Your task to perform on an android device: Open Google Chrome and open the bookmarks view Image 0: 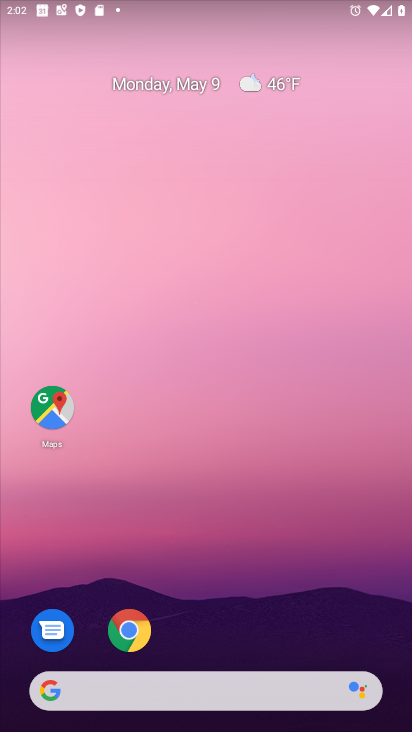
Step 0: drag from (310, 610) to (263, 364)
Your task to perform on an android device: Open Google Chrome and open the bookmarks view Image 1: 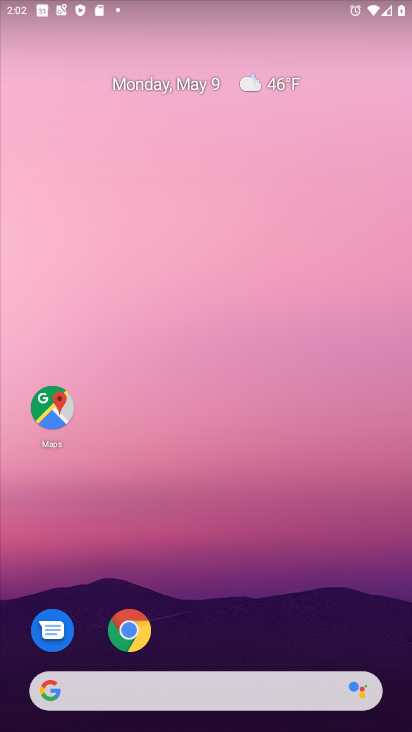
Step 1: drag from (215, 714) to (214, 381)
Your task to perform on an android device: Open Google Chrome and open the bookmarks view Image 2: 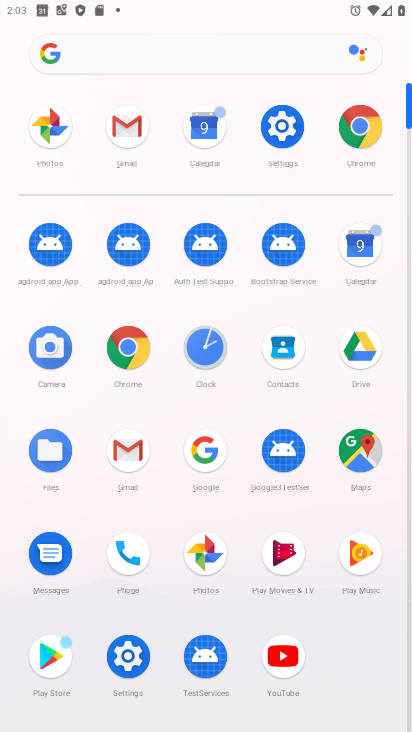
Step 2: click (135, 327)
Your task to perform on an android device: Open Google Chrome and open the bookmarks view Image 3: 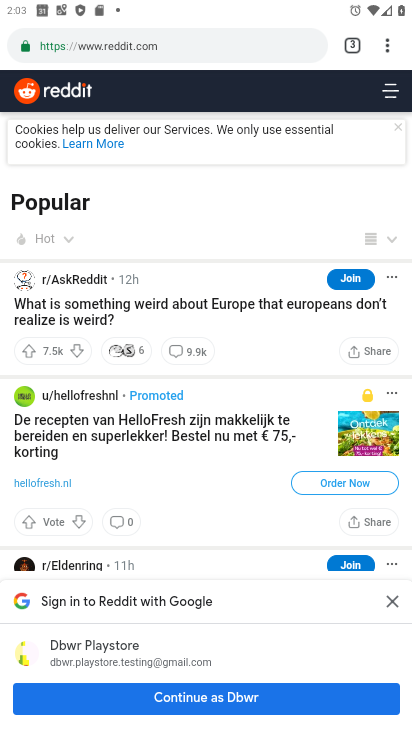
Step 3: click (385, 46)
Your task to perform on an android device: Open Google Chrome and open the bookmarks view Image 4: 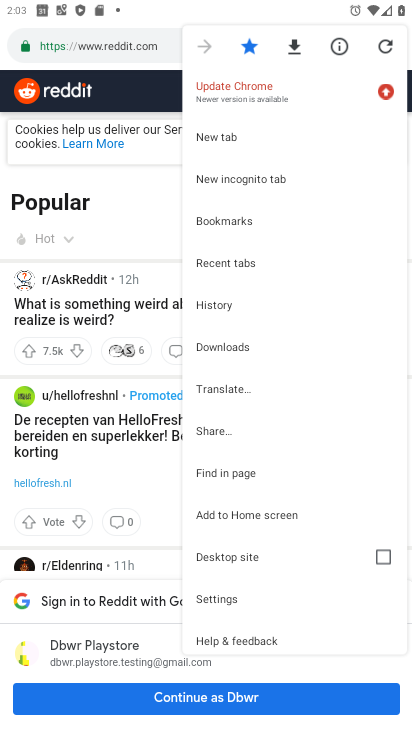
Step 4: click (248, 216)
Your task to perform on an android device: Open Google Chrome and open the bookmarks view Image 5: 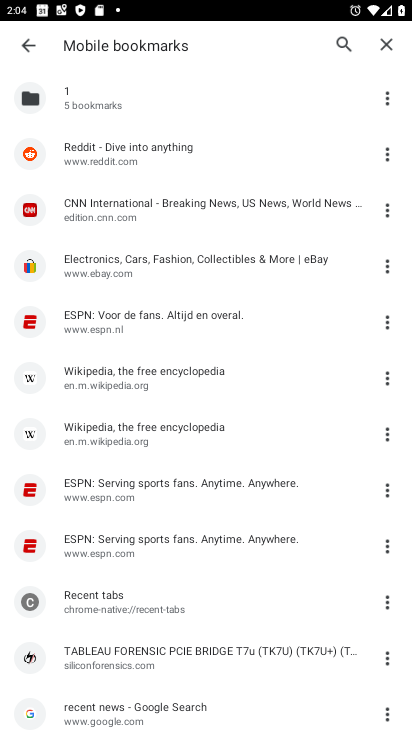
Step 5: click (111, 313)
Your task to perform on an android device: Open Google Chrome and open the bookmarks view Image 6: 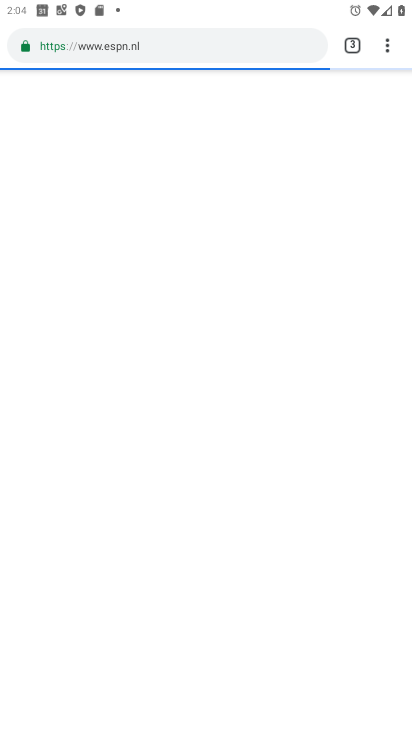
Step 6: task complete